Your task to perform on an android device: Search for vegetarian restaurants on Maps Image 0: 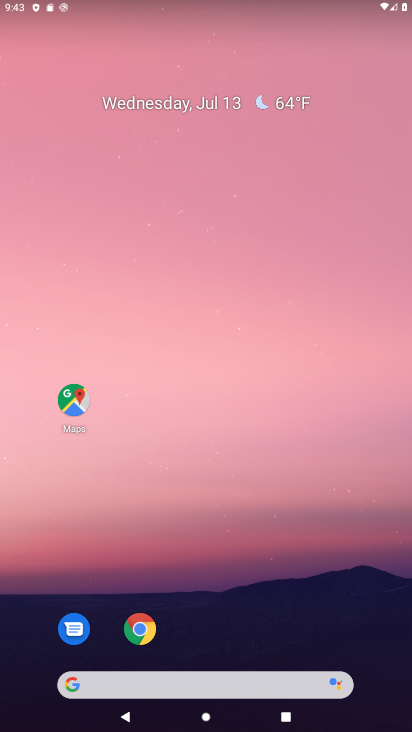
Step 0: drag from (232, 634) to (282, 101)
Your task to perform on an android device: Search for vegetarian restaurants on Maps Image 1: 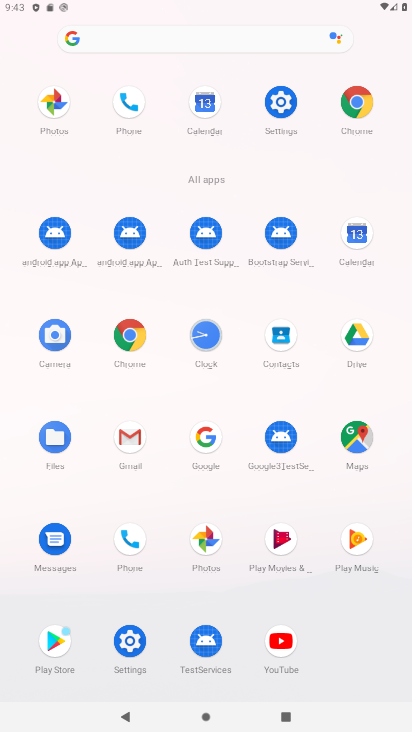
Step 1: click (363, 434)
Your task to perform on an android device: Search for vegetarian restaurants on Maps Image 2: 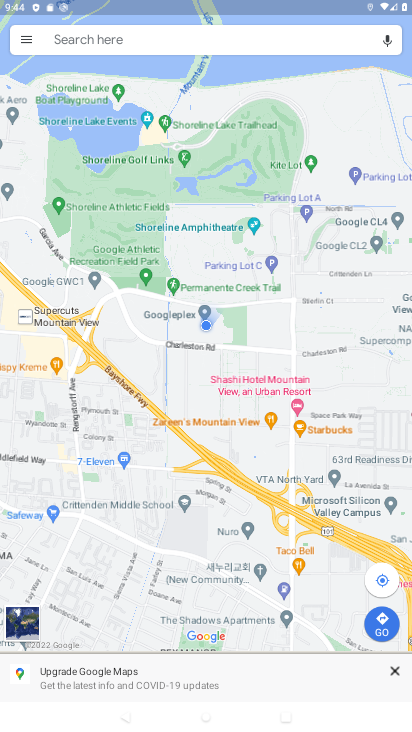
Step 2: click (209, 31)
Your task to perform on an android device: Search for vegetarian restaurants on Maps Image 3: 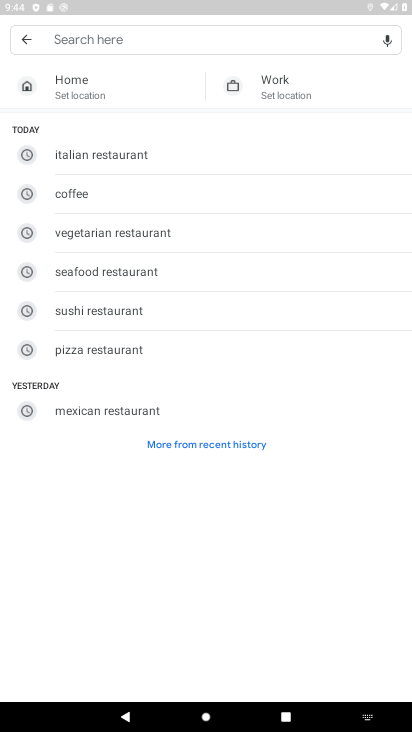
Step 3: type " vegetarian restaurants "
Your task to perform on an android device: Search for vegetarian restaurants on Maps Image 4: 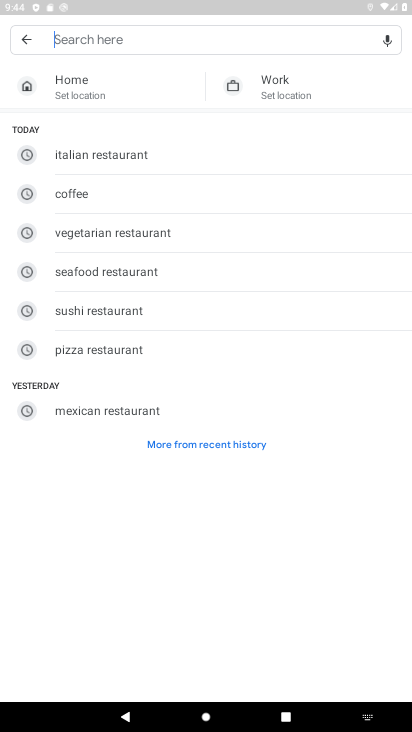
Step 4: click (104, 236)
Your task to perform on an android device: Search for vegetarian restaurants on Maps Image 5: 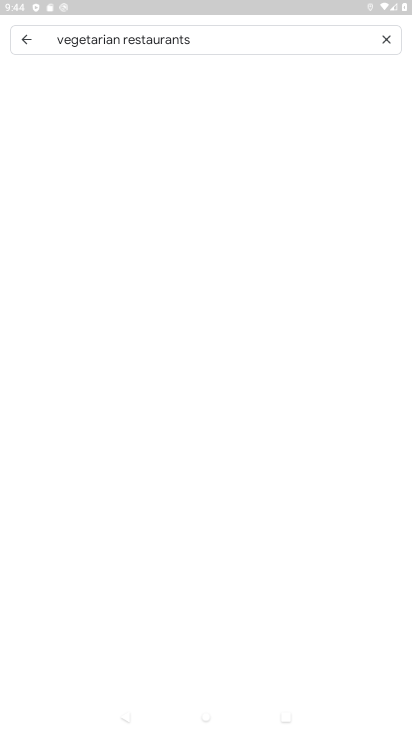
Step 5: click (113, 222)
Your task to perform on an android device: Search for vegetarian restaurants on Maps Image 6: 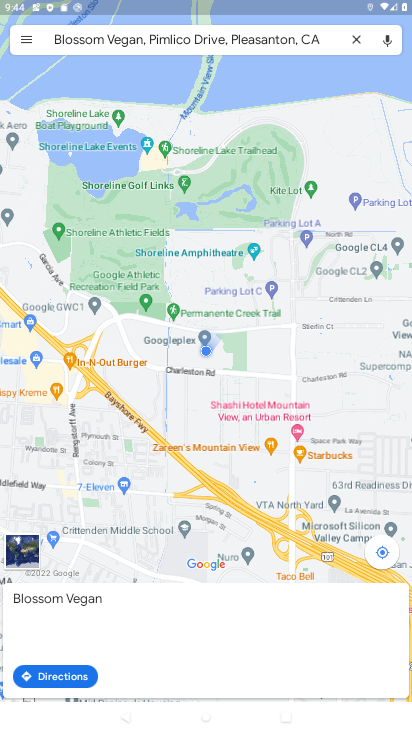
Step 6: click (140, 86)
Your task to perform on an android device: Search for vegetarian restaurants on Maps Image 7: 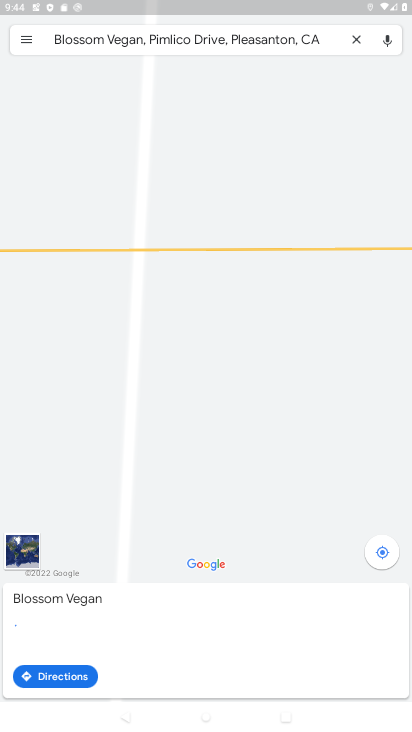
Step 7: task complete